Your task to perform on an android device: add a label to a message in the gmail app Image 0: 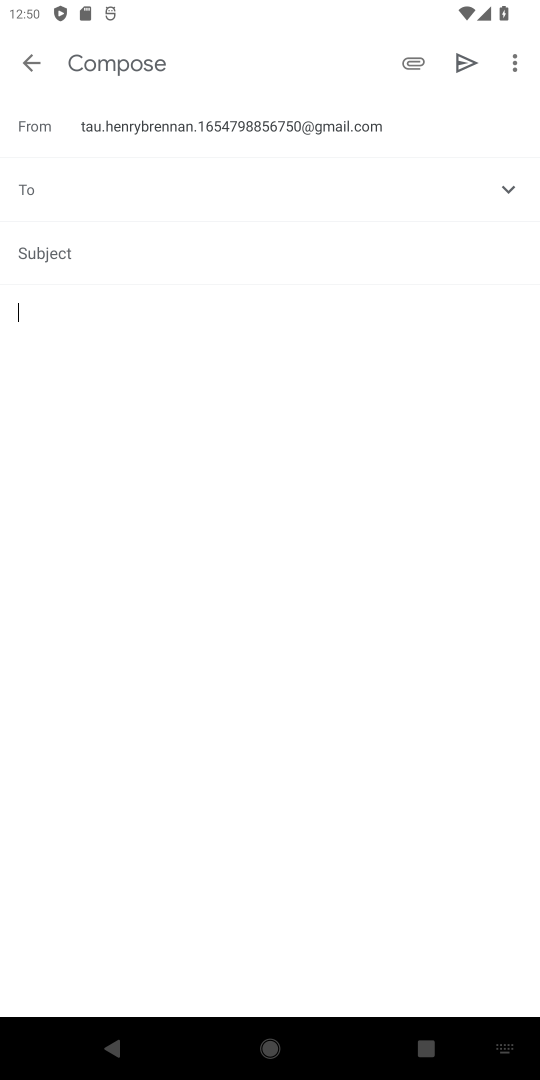
Step 0: press home button
Your task to perform on an android device: add a label to a message in the gmail app Image 1: 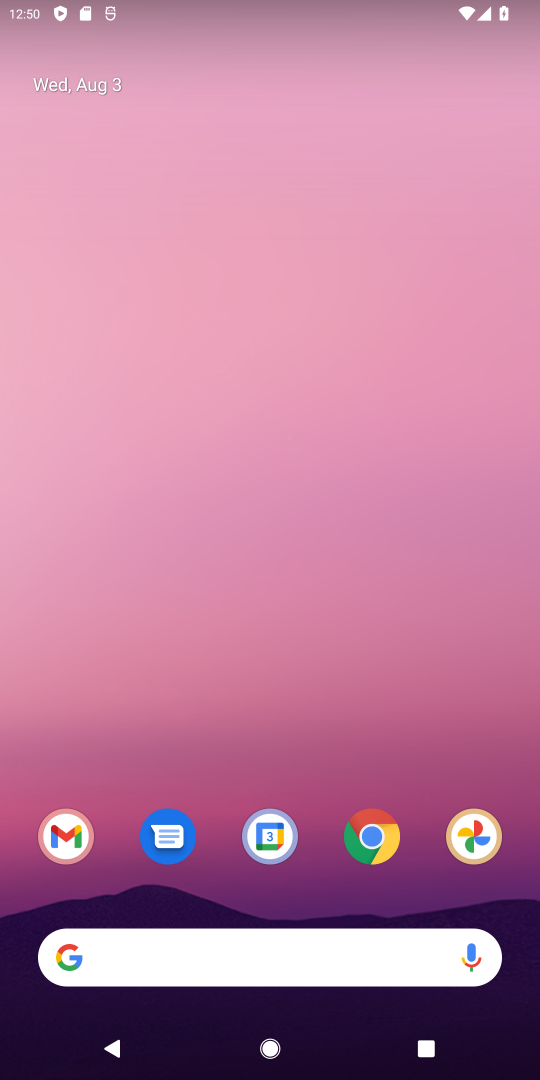
Step 1: drag from (220, 901) to (326, 130)
Your task to perform on an android device: add a label to a message in the gmail app Image 2: 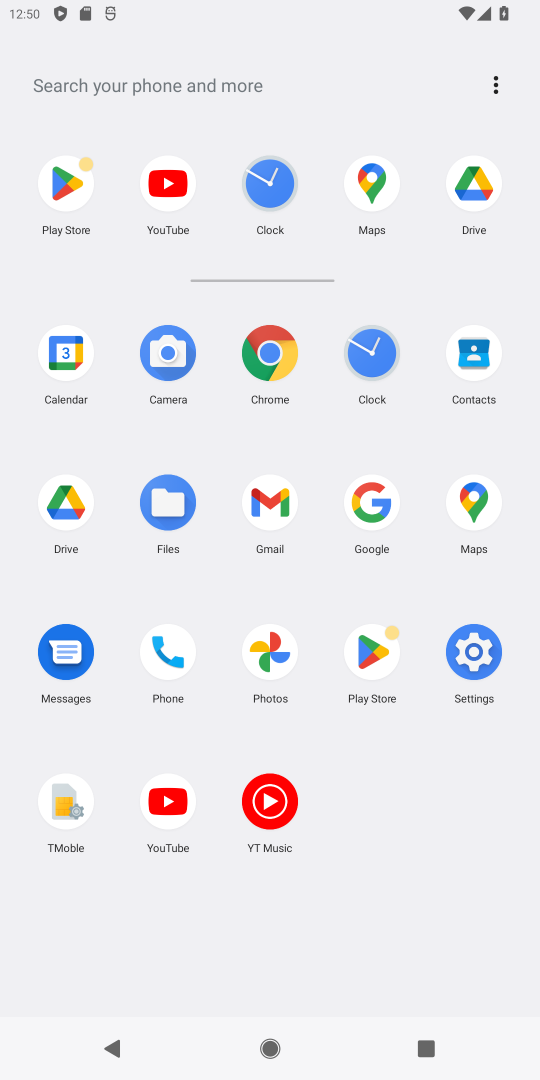
Step 2: click (252, 508)
Your task to perform on an android device: add a label to a message in the gmail app Image 3: 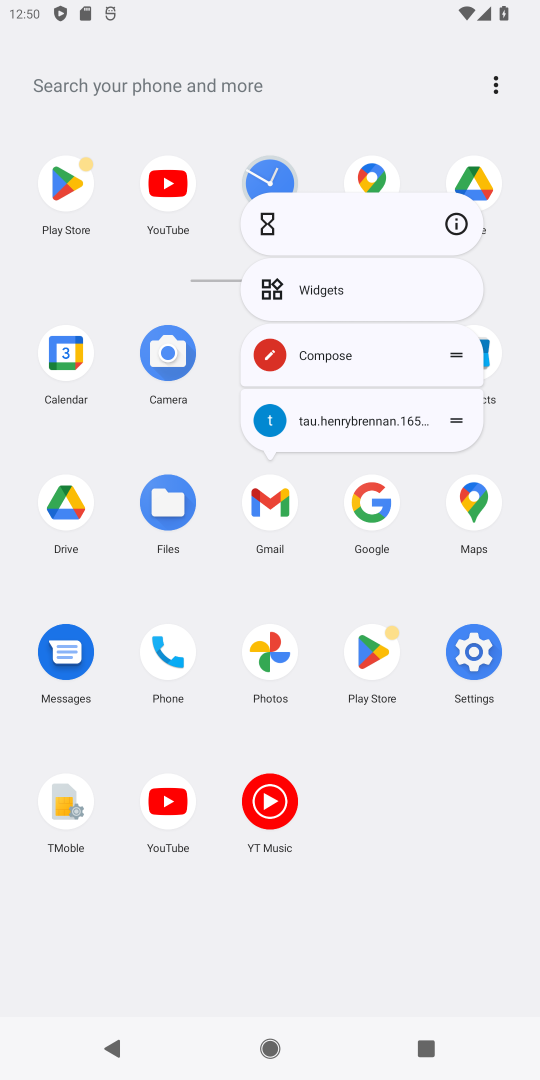
Step 3: click (454, 237)
Your task to perform on an android device: add a label to a message in the gmail app Image 4: 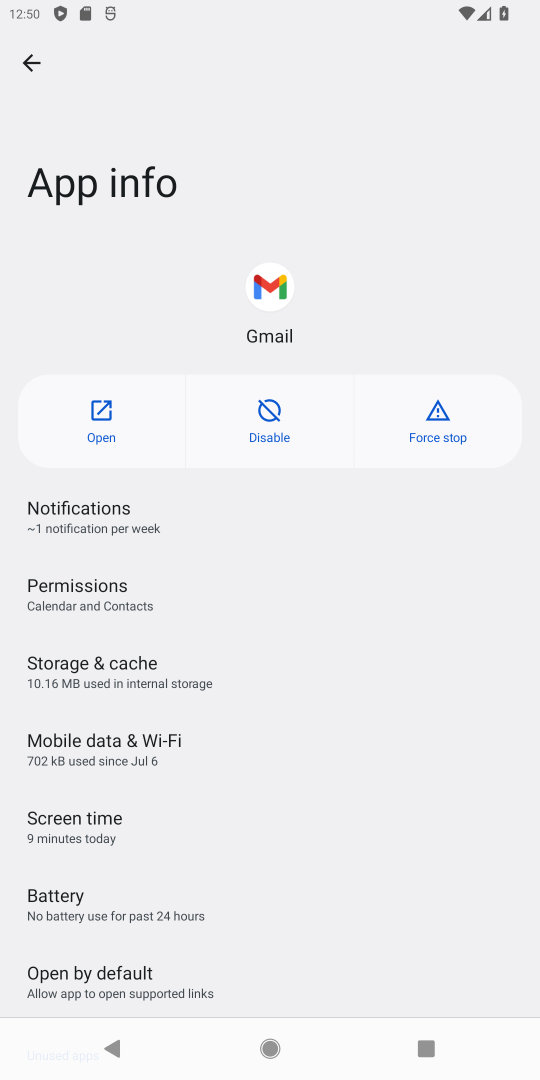
Step 4: click (84, 401)
Your task to perform on an android device: add a label to a message in the gmail app Image 5: 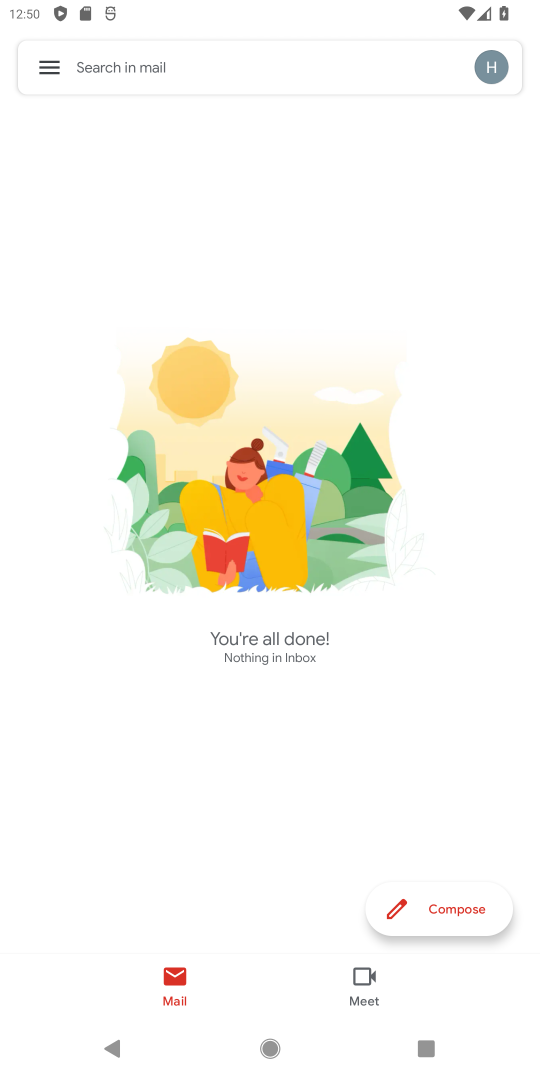
Step 5: click (60, 66)
Your task to perform on an android device: add a label to a message in the gmail app Image 6: 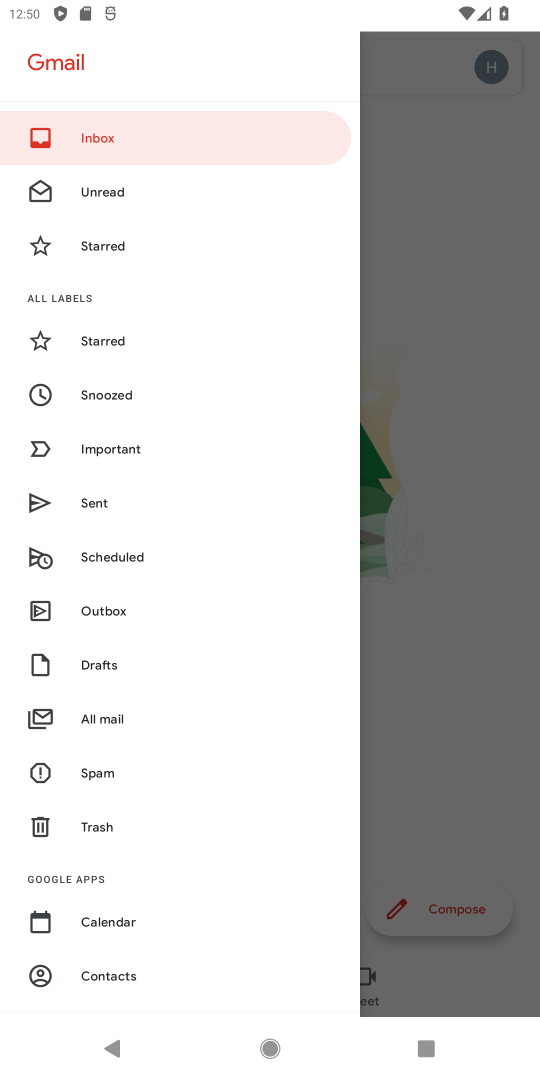
Step 6: drag from (150, 767) to (256, 163)
Your task to perform on an android device: add a label to a message in the gmail app Image 7: 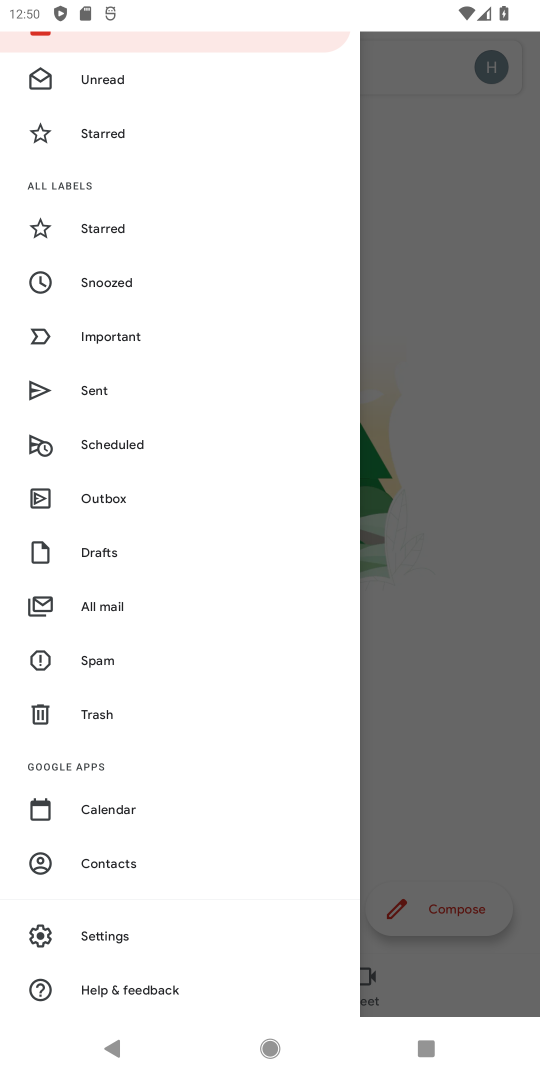
Step 7: drag from (130, 295) to (141, 998)
Your task to perform on an android device: add a label to a message in the gmail app Image 8: 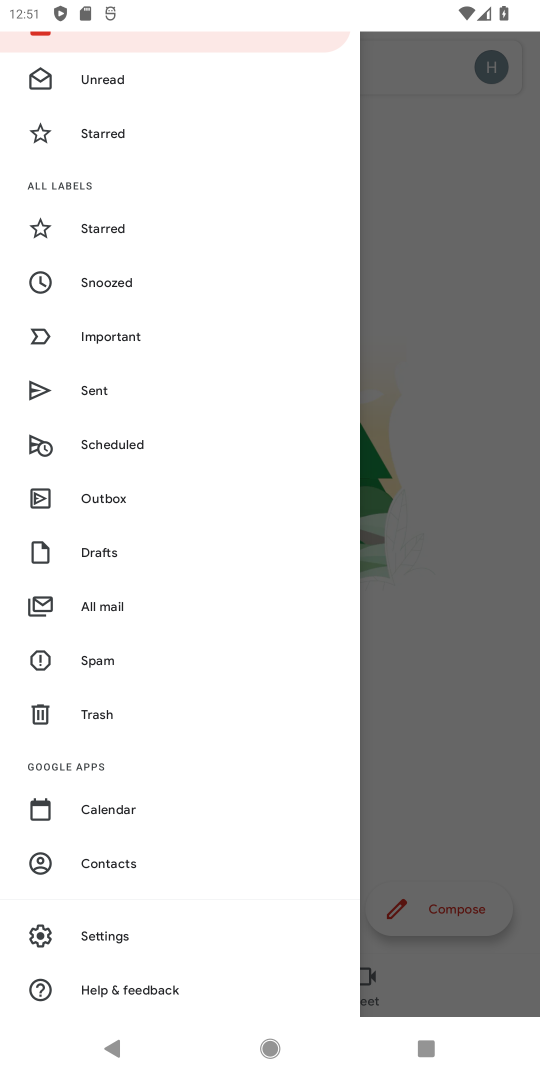
Step 8: drag from (128, 179) to (151, 877)
Your task to perform on an android device: add a label to a message in the gmail app Image 9: 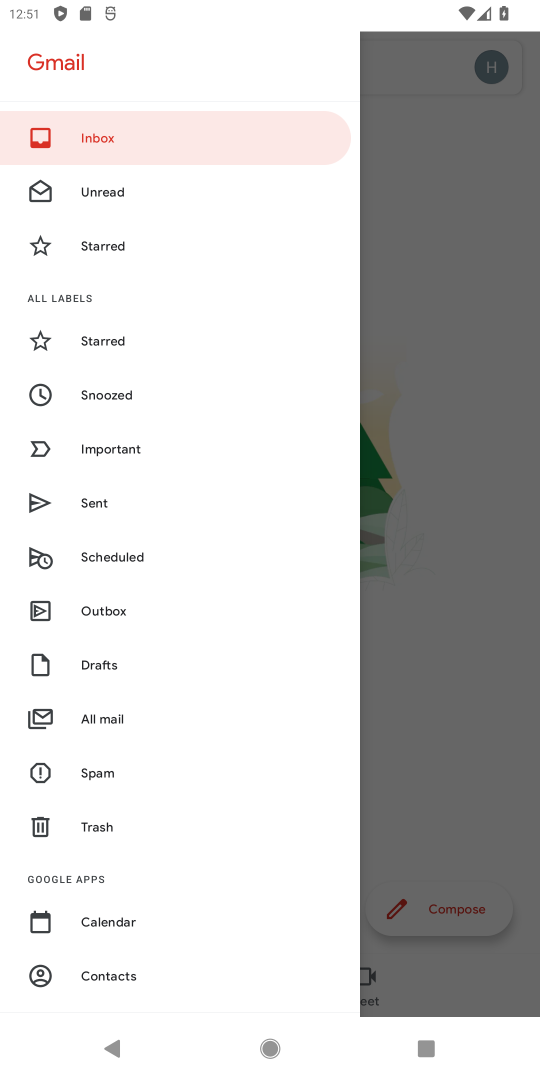
Step 9: click (88, 152)
Your task to perform on an android device: add a label to a message in the gmail app Image 10: 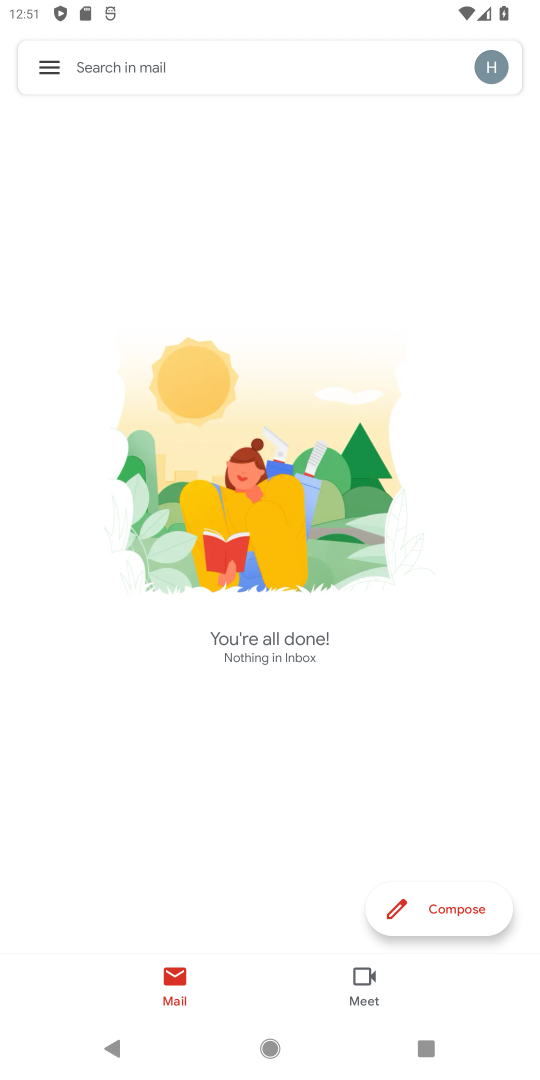
Step 10: click (351, 272)
Your task to perform on an android device: add a label to a message in the gmail app Image 11: 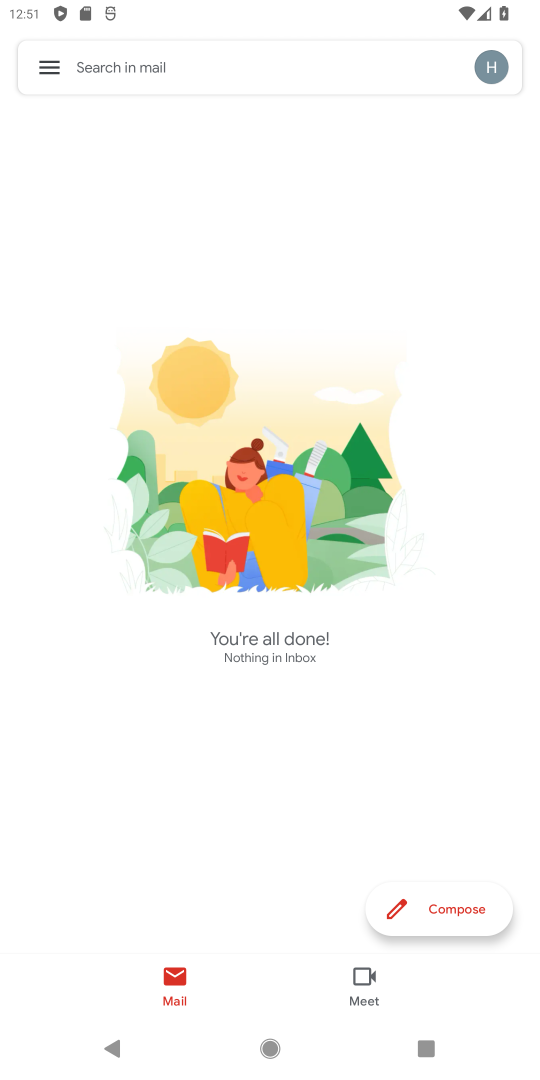
Step 11: task complete